Your task to perform on an android device: change the clock display to show seconds Image 0: 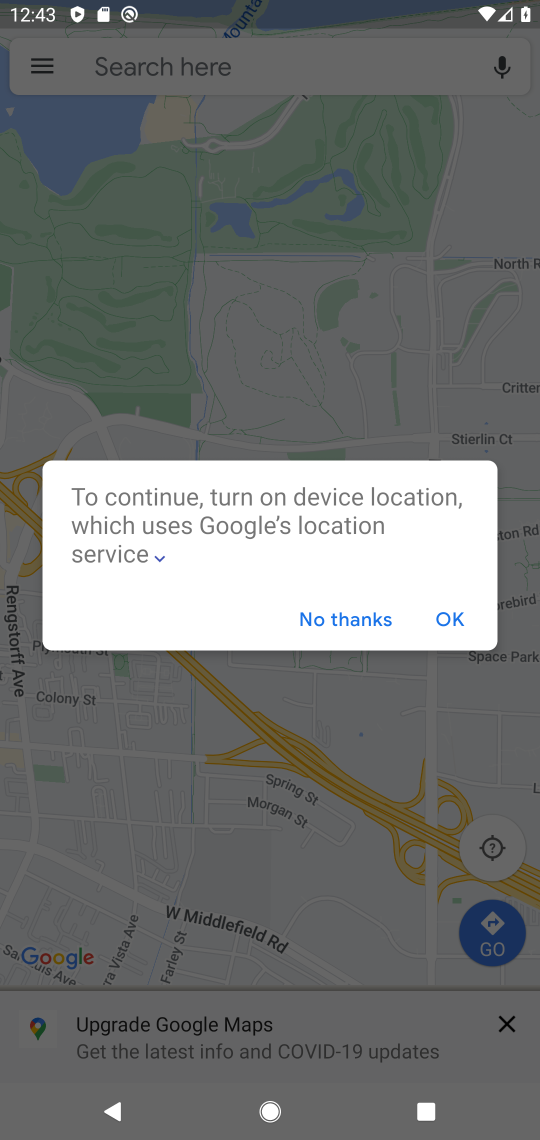
Step 0: press home button
Your task to perform on an android device: change the clock display to show seconds Image 1: 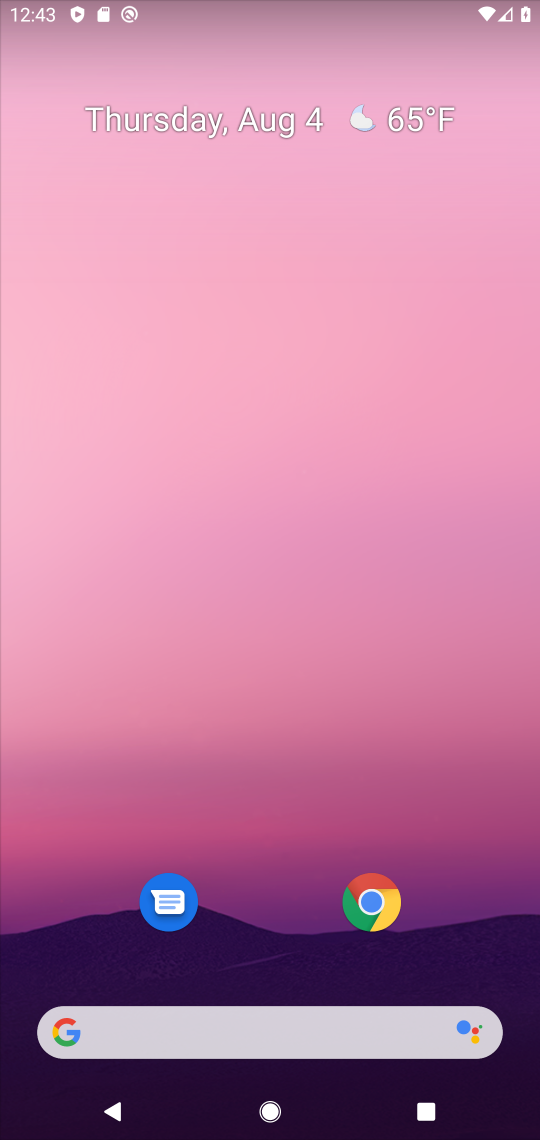
Step 1: drag from (494, 955) to (469, 283)
Your task to perform on an android device: change the clock display to show seconds Image 2: 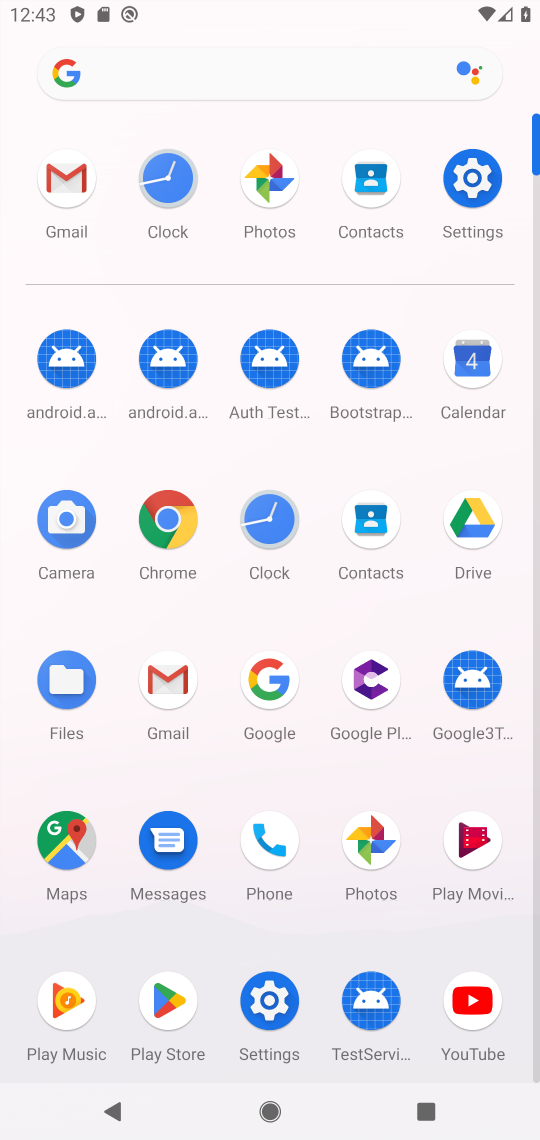
Step 2: click (268, 517)
Your task to perform on an android device: change the clock display to show seconds Image 3: 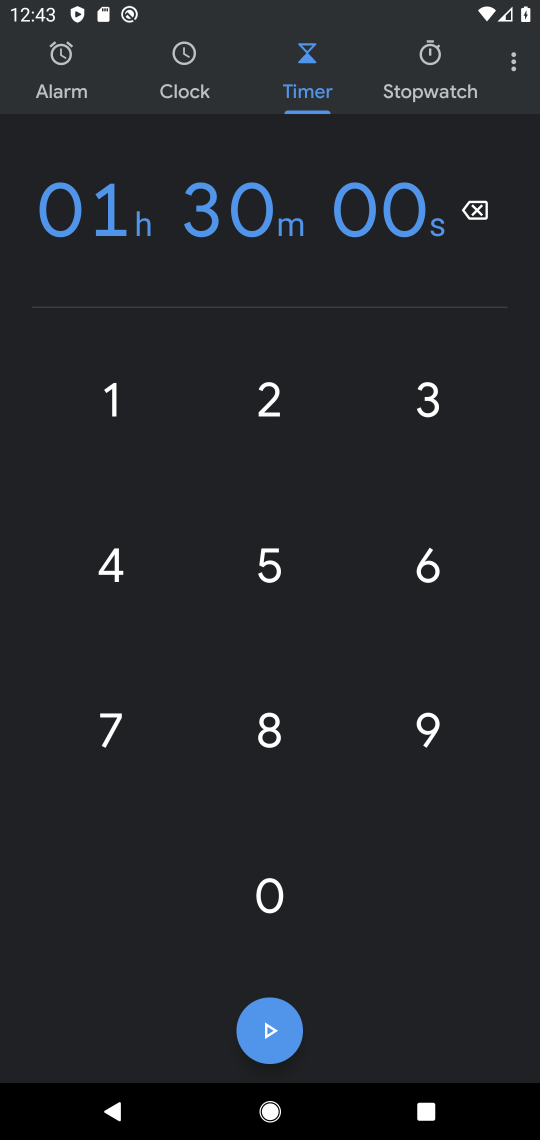
Step 3: click (506, 77)
Your task to perform on an android device: change the clock display to show seconds Image 4: 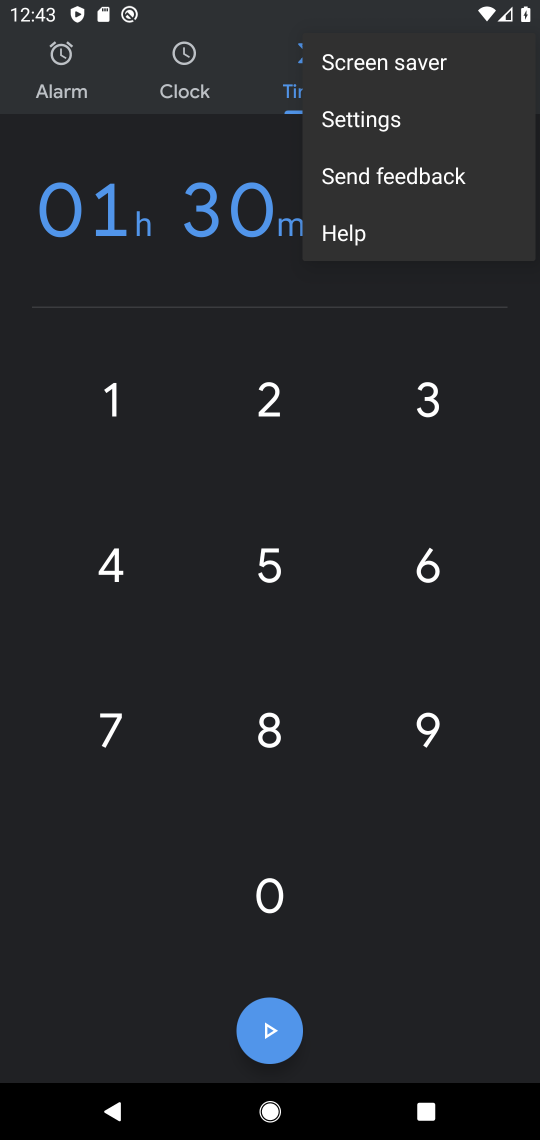
Step 4: click (346, 121)
Your task to perform on an android device: change the clock display to show seconds Image 5: 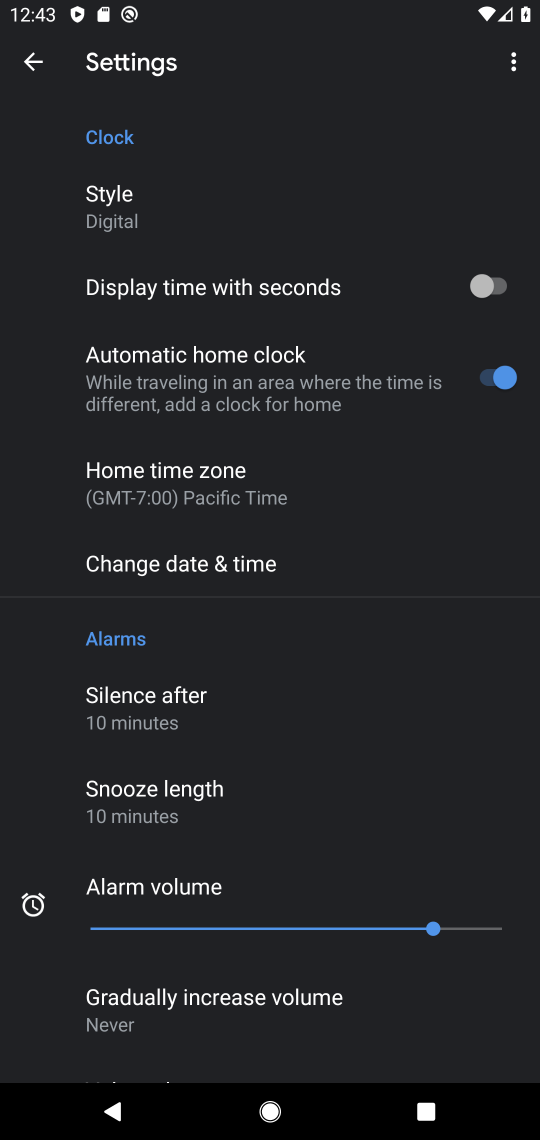
Step 5: click (499, 283)
Your task to perform on an android device: change the clock display to show seconds Image 6: 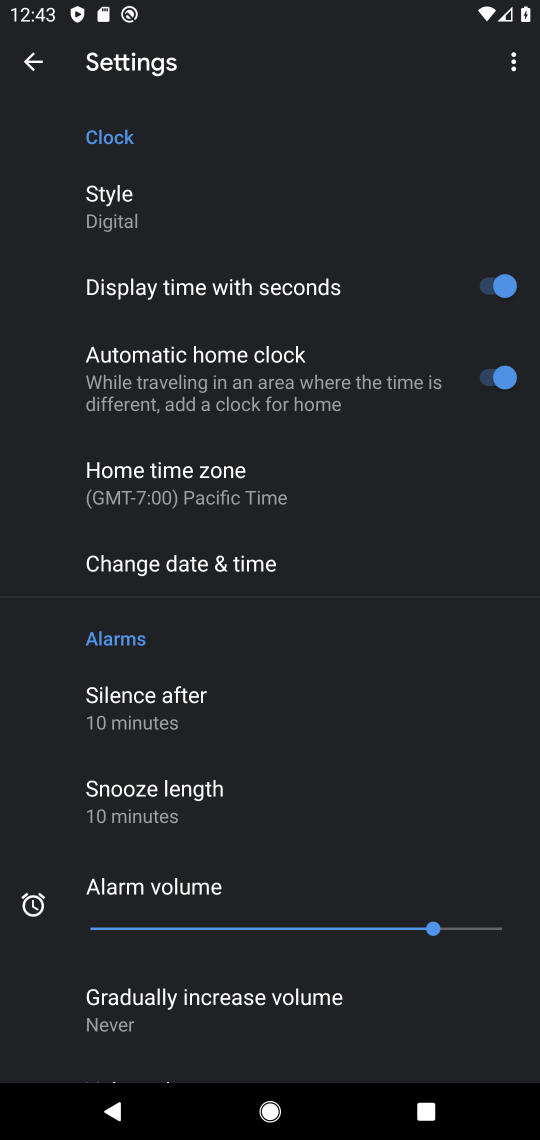
Step 6: task complete